Your task to perform on an android device: turn on improve location accuracy Image 0: 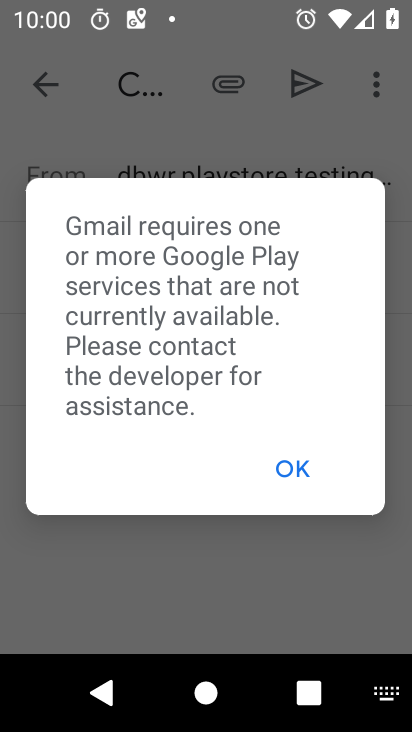
Step 0: press home button
Your task to perform on an android device: turn on improve location accuracy Image 1: 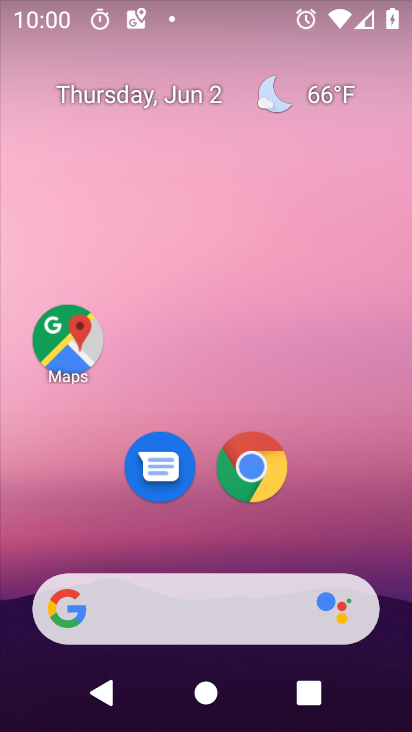
Step 1: drag from (54, 481) to (239, 76)
Your task to perform on an android device: turn on improve location accuracy Image 2: 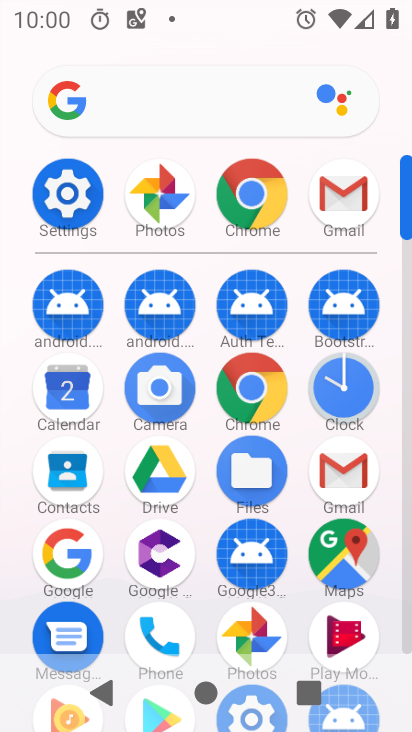
Step 2: click (80, 186)
Your task to perform on an android device: turn on improve location accuracy Image 3: 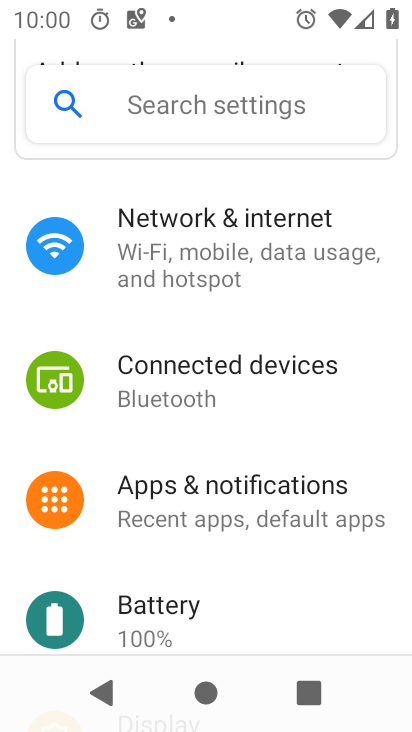
Step 3: drag from (19, 480) to (281, 143)
Your task to perform on an android device: turn on improve location accuracy Image 4: 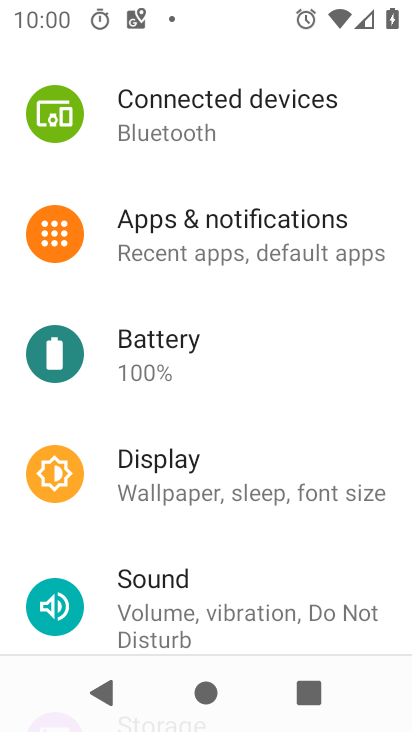
Step 4: drag from (26, 604) to (297, 180)
Your task to perform on an android device: turn on improve location accuracy Image 5: 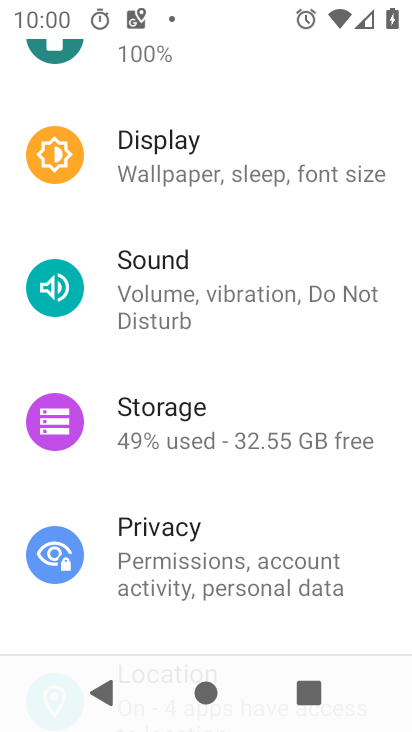
Step 5: drag from (39, 522) to (259, 213)
Your task to perform on an android device: turn on improve location accuracy Image 6: 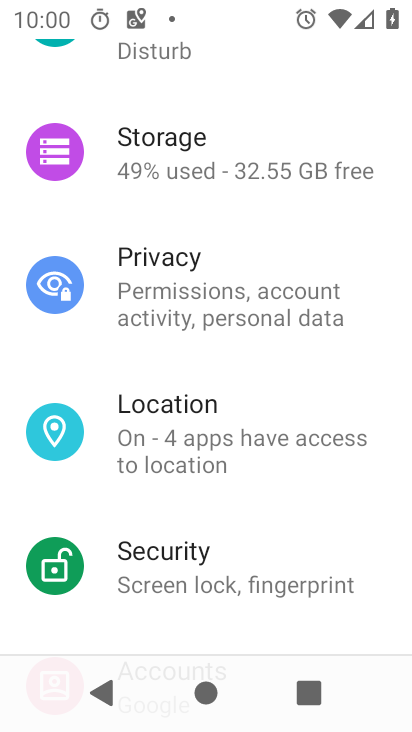
Step 6: click (222, 444)
Your task to perform on an android device: turn on improve location accuracy Image 7: 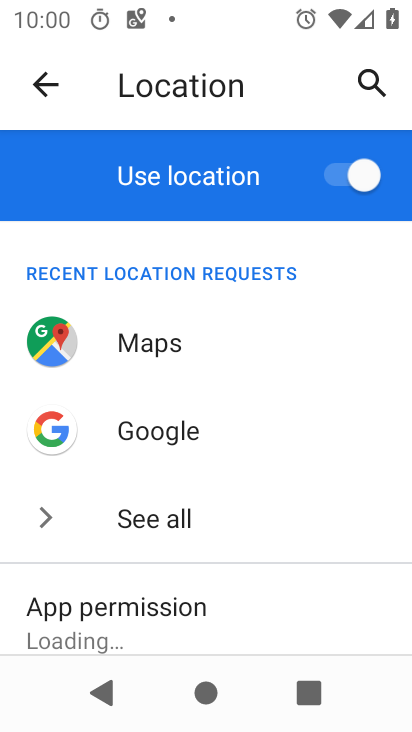
Step 7: drag from (58, 510) to (249, 206)
Your task to perform on an android device: turn on improve location accuracy Image 8: 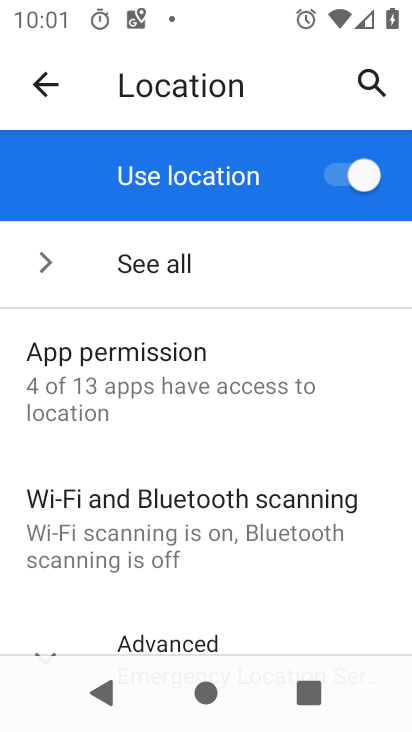
Step 8: drag from (32, 556) to (260, 256)
Your task to perform on an android device: turn on improve location accuracy Image 9: 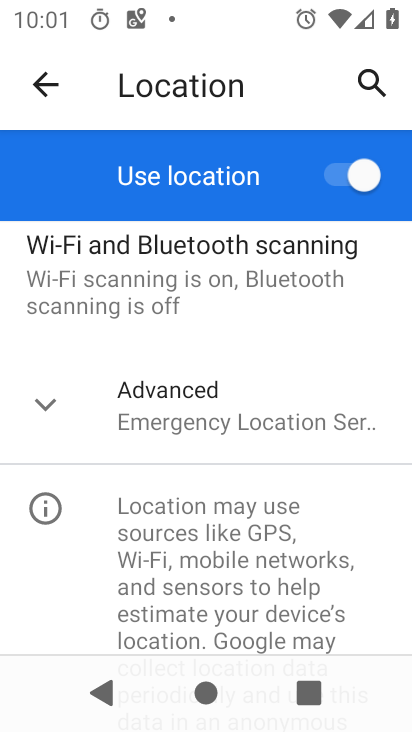
Step 9: click (286, 409)
Your task to perform on an android device: turn on improve location accuracy Image 10: 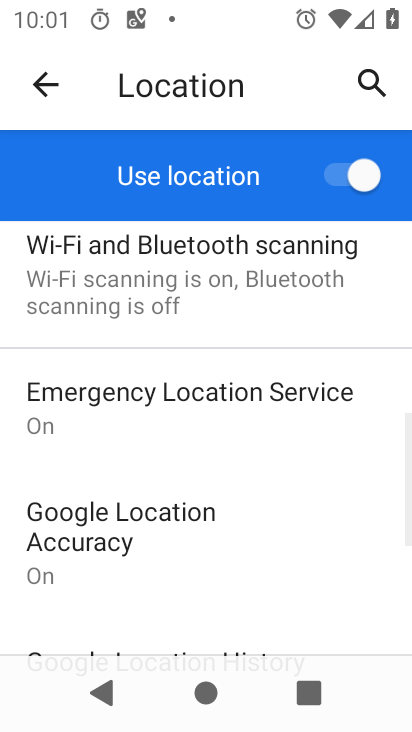
Step 10: click (77, 546)
Your task to perform on an android device: turn on improve location accuracy Image 11: 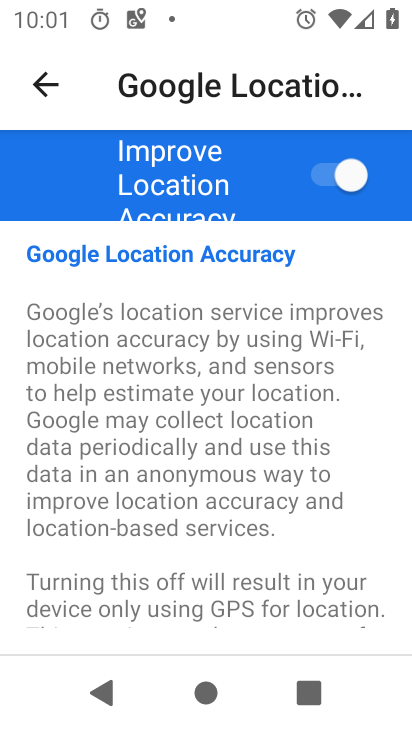
Step 11: task complete